Your task to perform on an android device: Go to CNN.com Image 0: 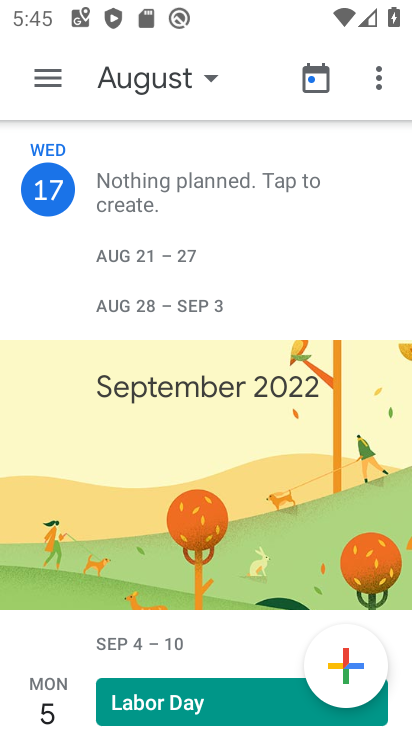
Step 0: press home button
Your task to perform on an android device: Go to CNN.com Image 1: 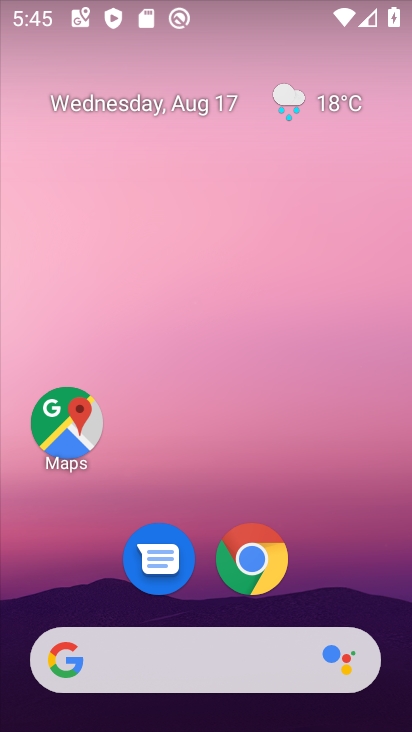
Step 1: click (230, 557)
Your task to perform on an android device: Go to CNN.com Image 2: 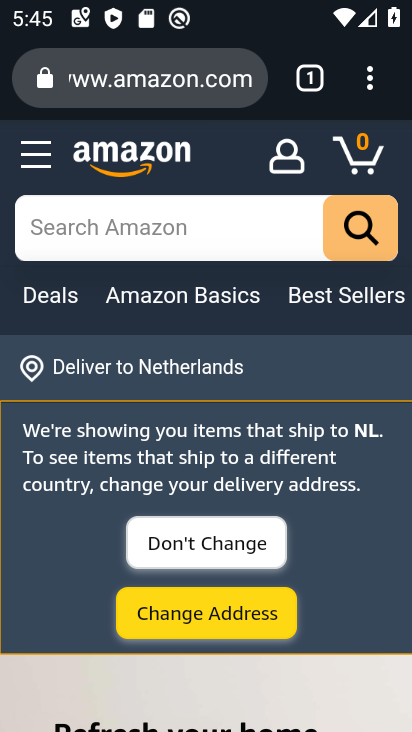
Step 2: click (116, 94)
Your task to perform on an android device: Go to CNN.com Image 3: 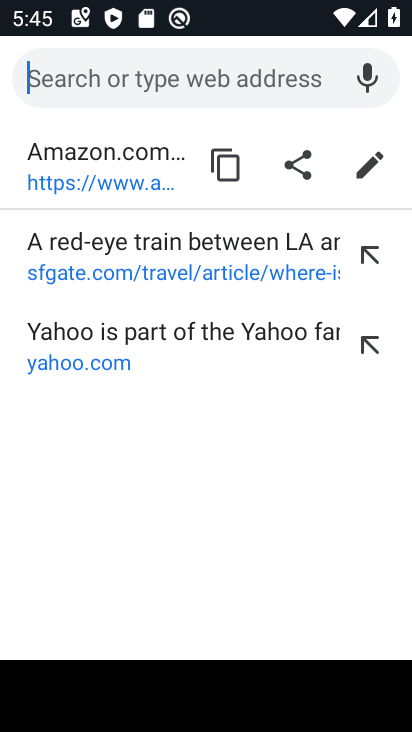
Step 3: type "cnn.com"
Your task to perform on an android device: Go to CNN.com Image 4: 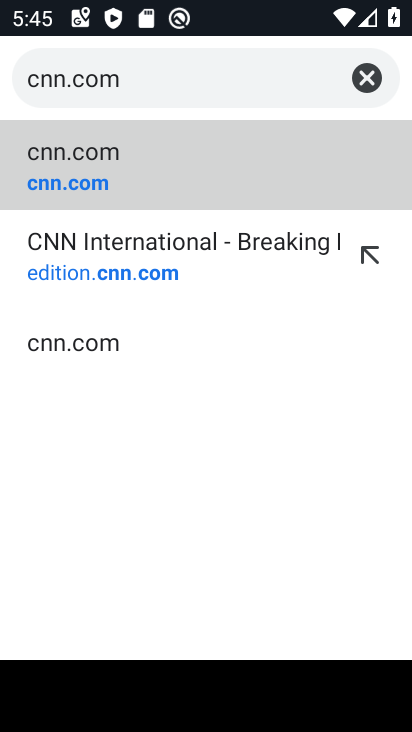
Step 4: click (75, 153)
Your task to perform on an android device: Go to CNN.com Image 5: 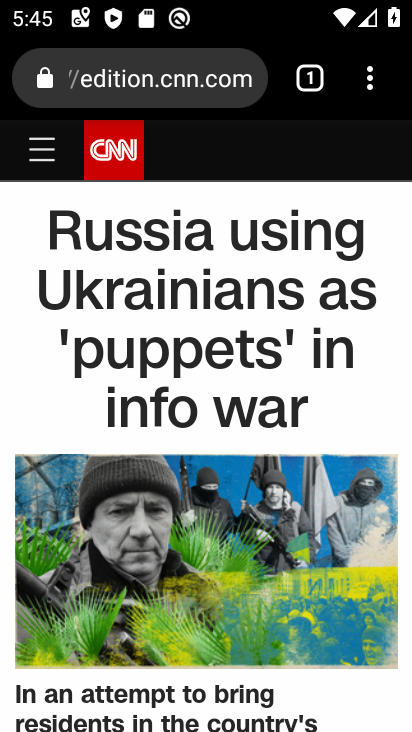
Step 5: task complete